Your task to perform on an android device: open app "ZOOM Cloud Meetings" (install if not already installed) Image 0: 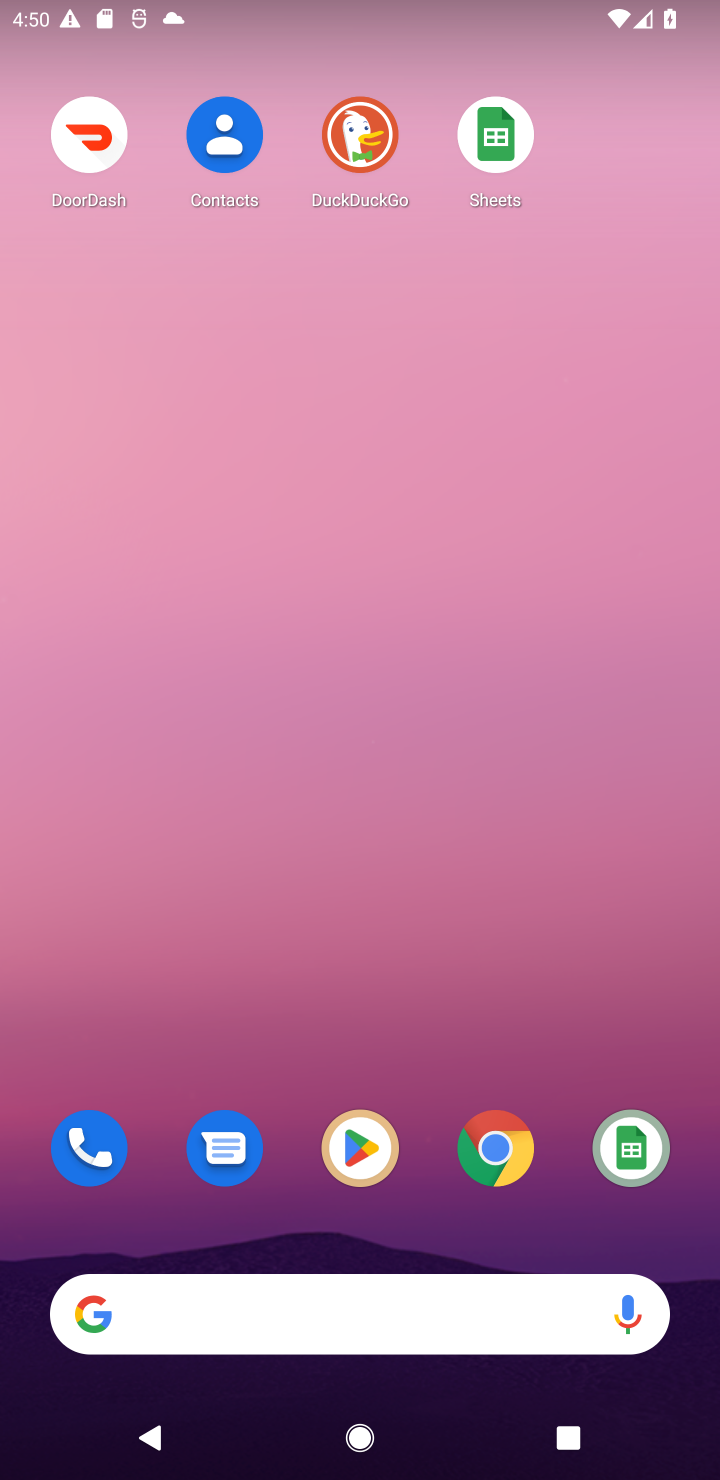
Step 0: drag from (390, 1114) to (287, 92)
Your task to perform on an android device: open app "ZOOM Cloud Meetings" (install if not already installed) Image 1: 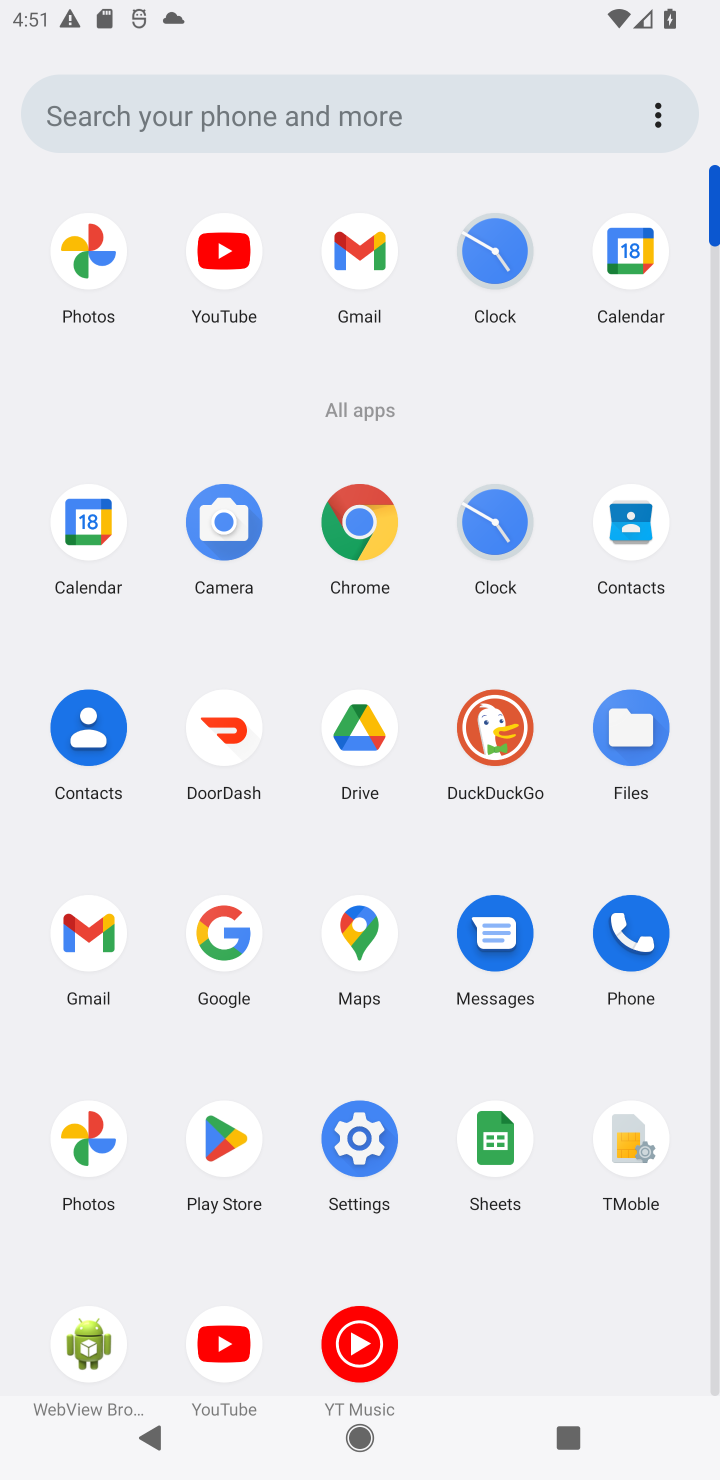
Step 1: click (181, 1182)
Your task to perform on an android device: open app "ZOOM Cloud Meetings" (install if not already installed) Image 2: 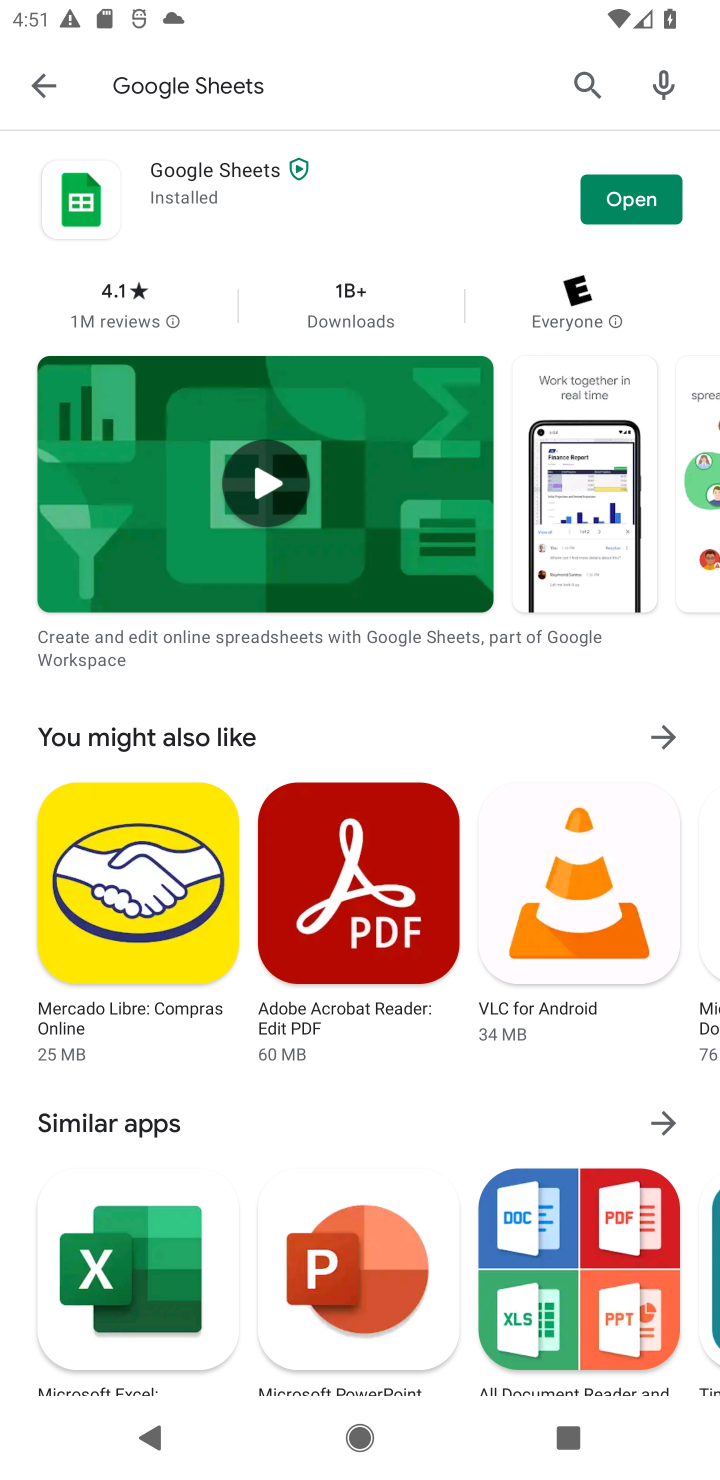
Step 2: click (22, 94)
Your task to perform on an android device: open app "ZOOM Cloud Meetings" (install if not already installed) Image 3: 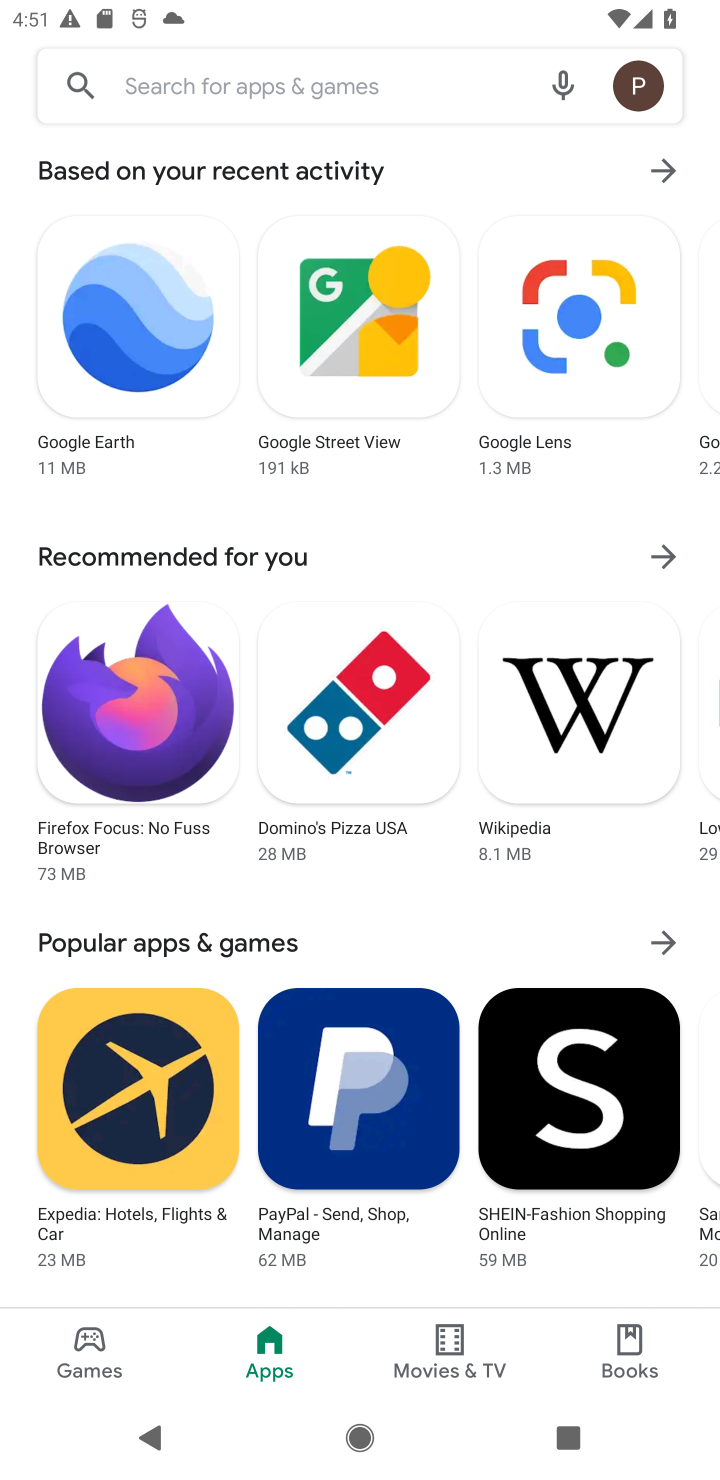
Step 3: click (207, 81)
Your task to perform on an android device: open app "ZOOM Cloud Meetings" (install if not already installed) Image 4: 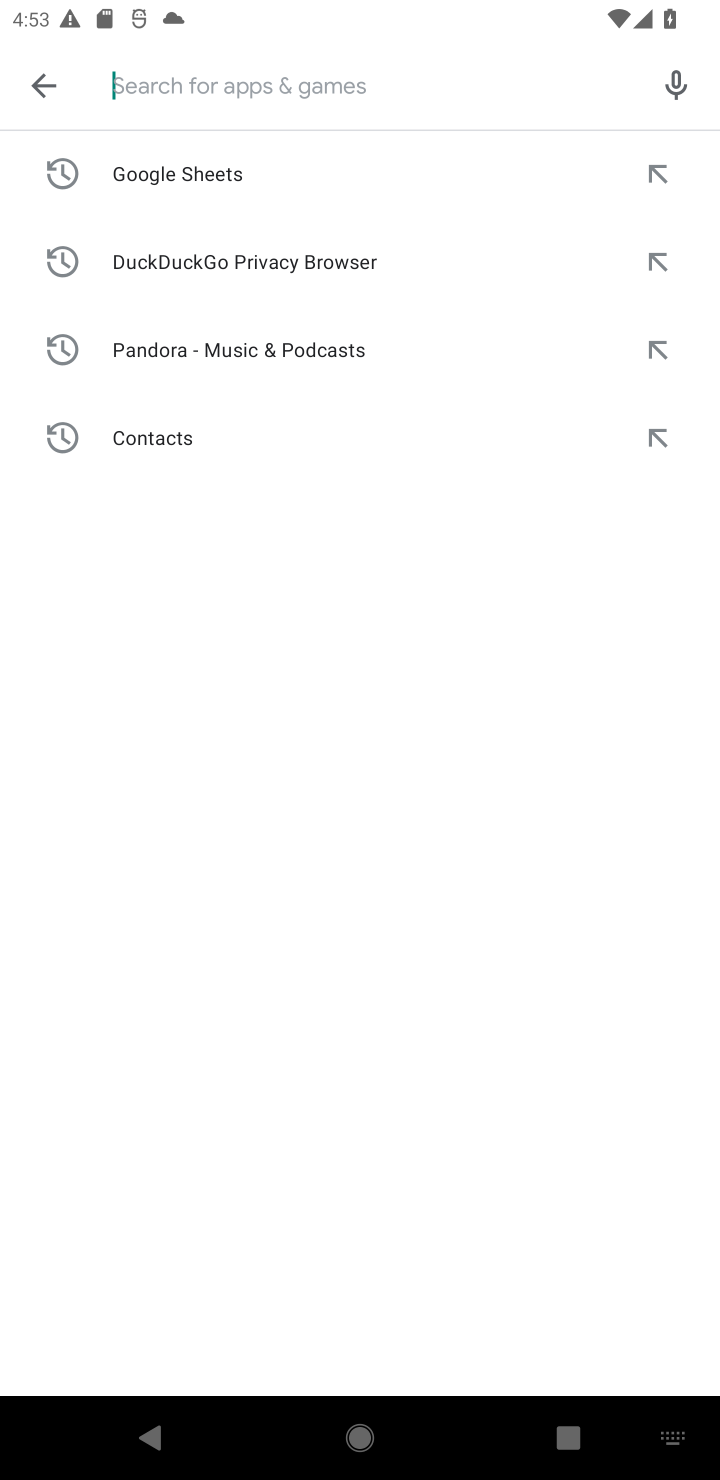
Step 4: type "ZOOM Cloud Meetings"
Your task to perform on an android device: open app "ZOOM Cloud Meetings" (install if not already installed) Image 5: 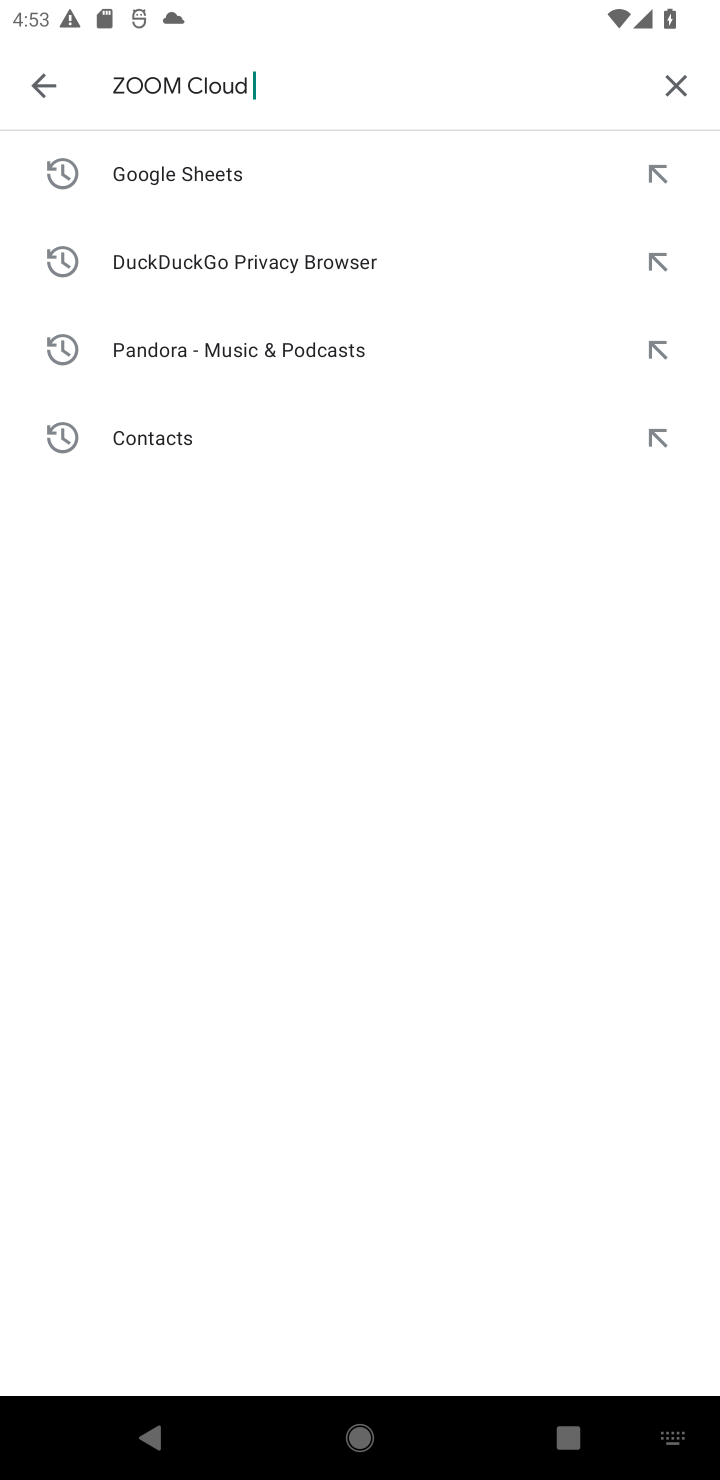
Step 5: press enter
Your task to perform on an android device: open app "ZOOM Cloud Meetings" (install if not already installed) Image 6: 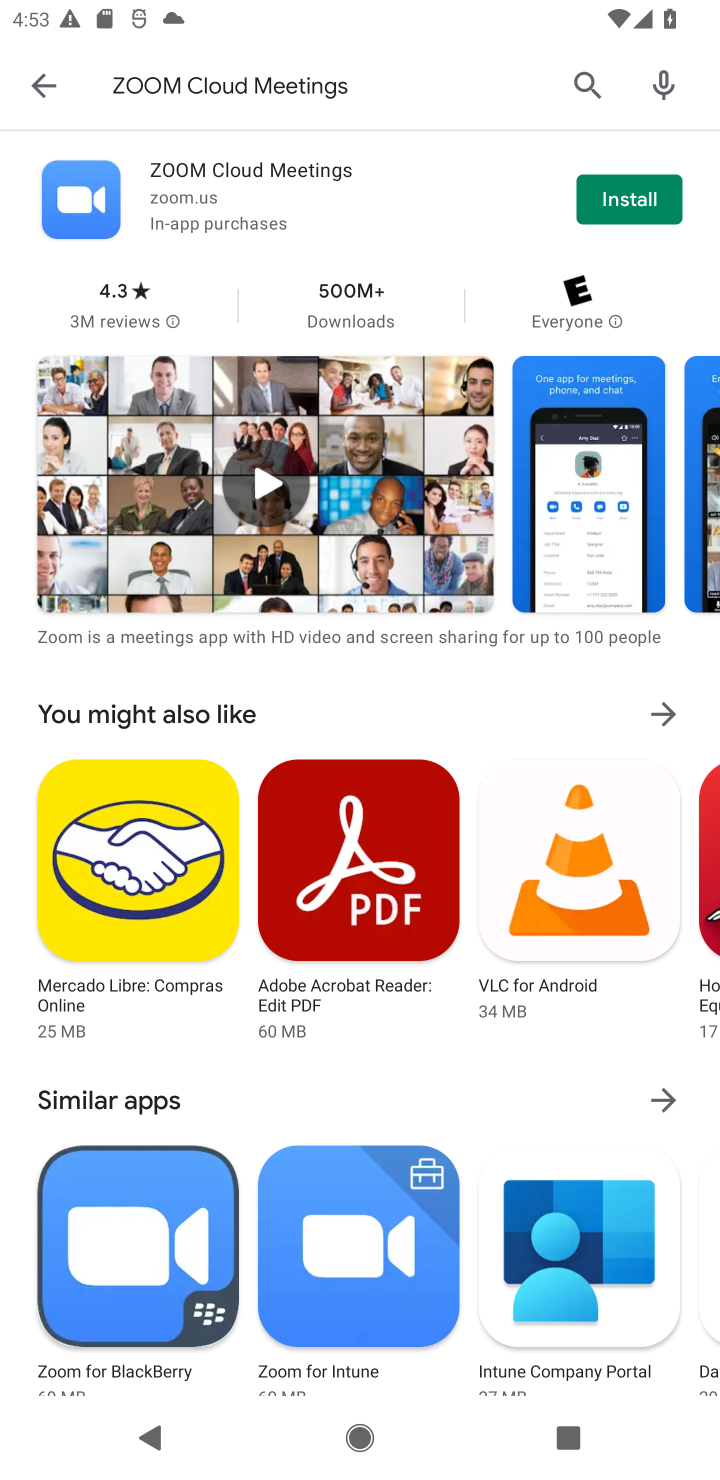
Step 6: click (661, 194)
Your task to perform on an android device: open app "ZOOM Cloud Meetings" (install if not already installed) Image 7: 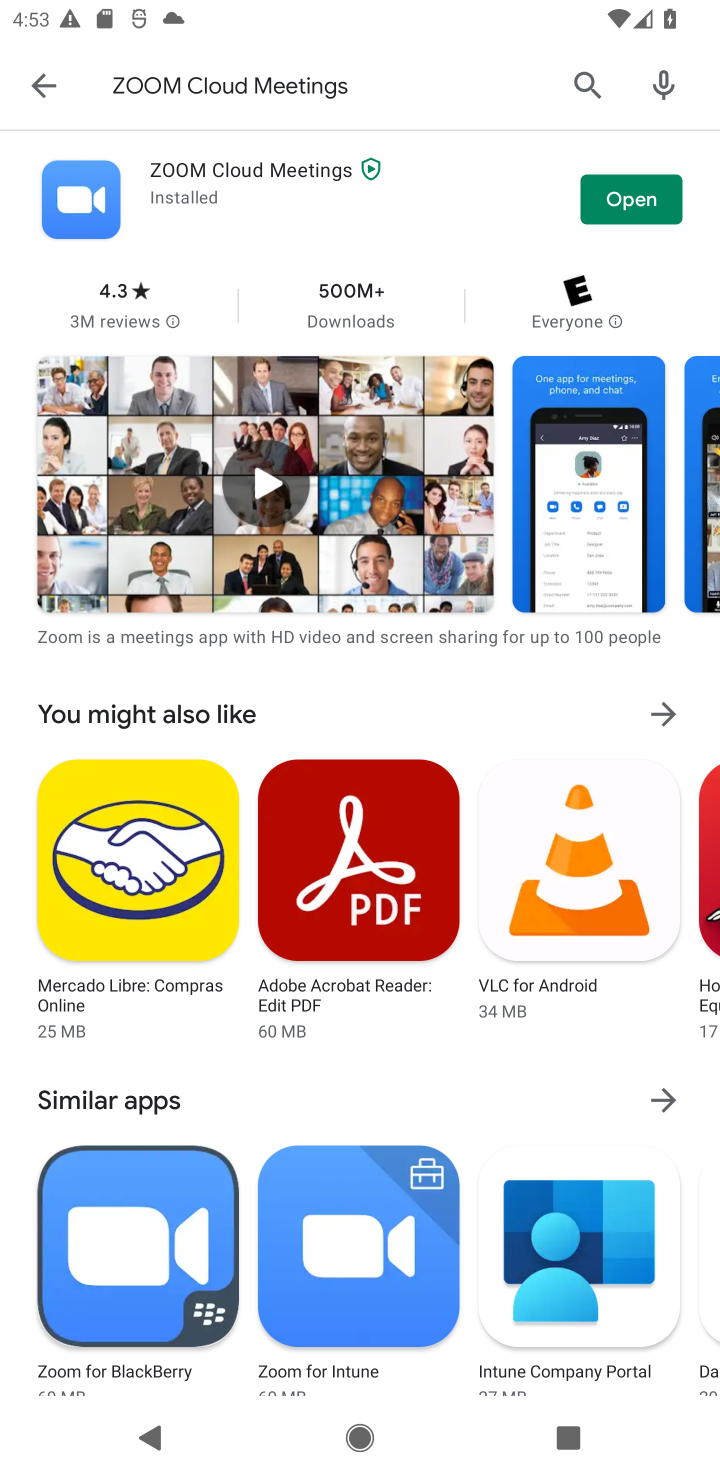
Step 7: click (658, 200)
Your task to perform on an android device: open app "ZOOM Cloud Meetings" (install if not already installed) Image 8: 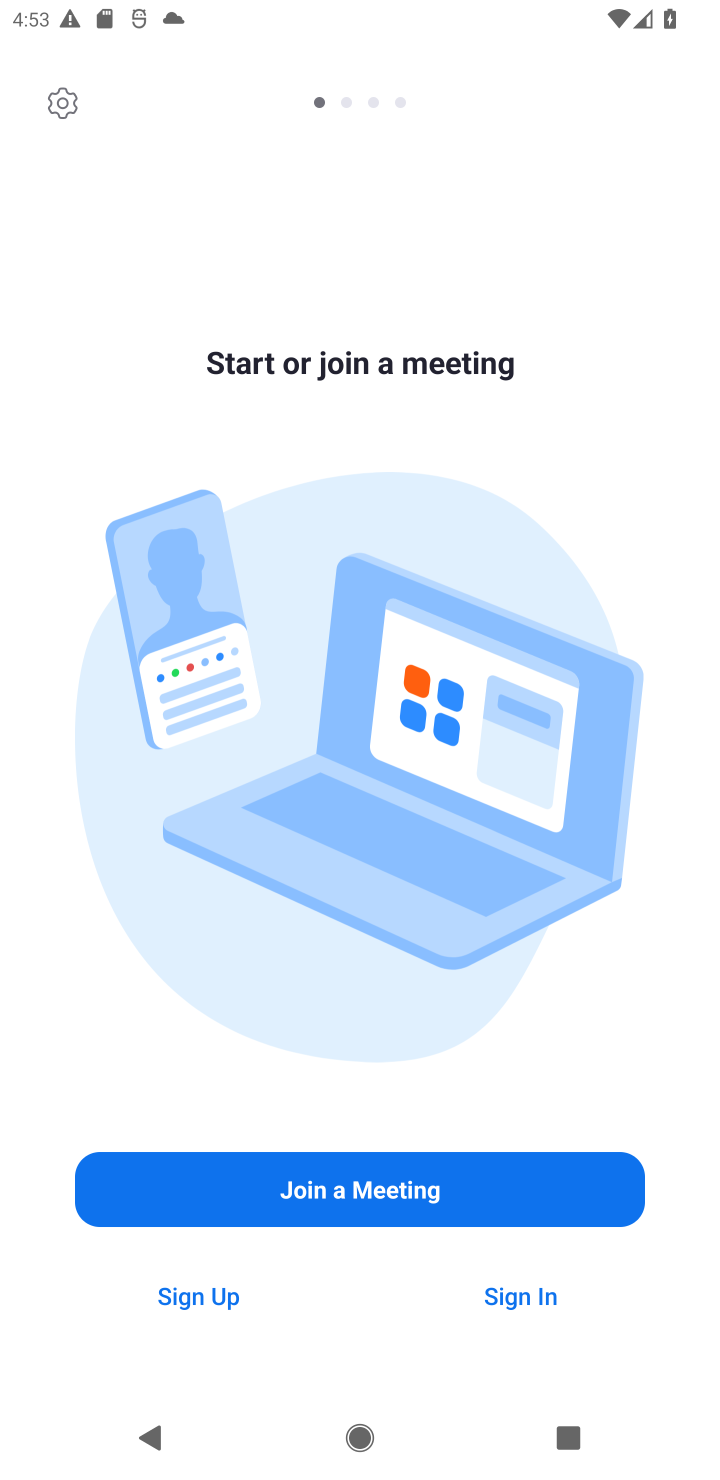
Step 8: task complete